Your task to perform on an android device: Open Google Chrome Image 0: 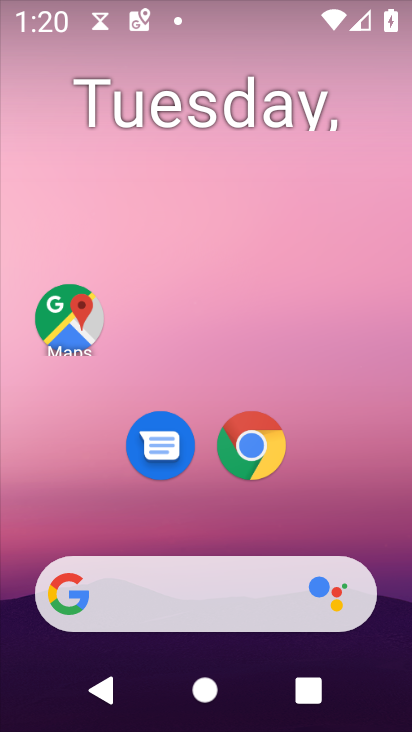
Step 0: click (237, 429)
Your task to perform on an android device: Open Google Chrome Image 1: 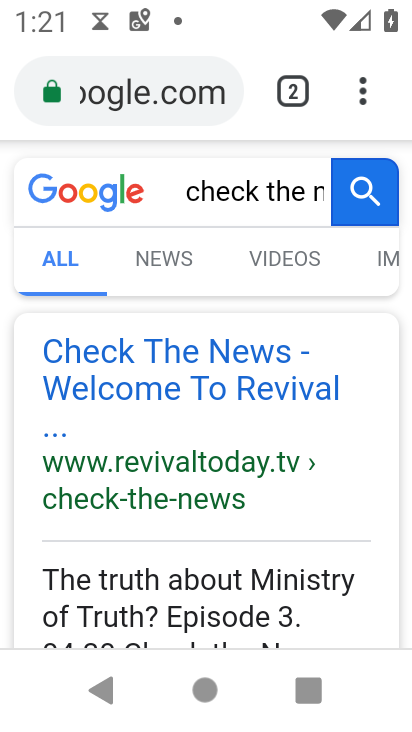
Step 1: task complete